Your task to perform on an android device: Go to network settings Image 0: 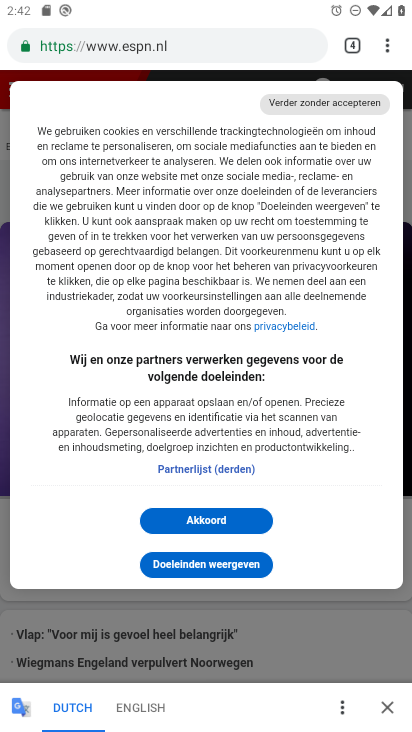
Step 0: press home button
Your task to perform on an android device: Go to network settings Image 1: 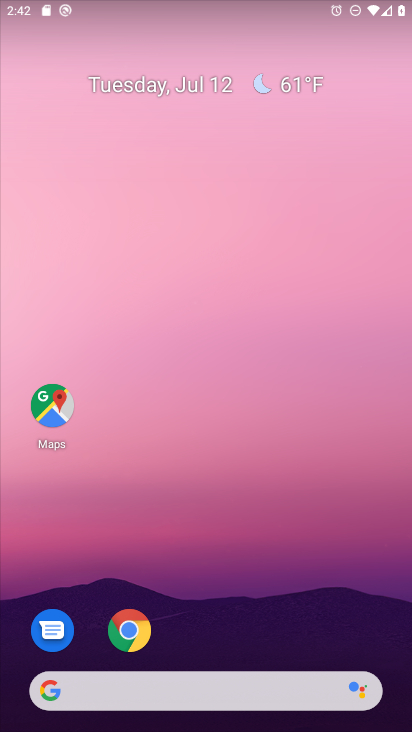
Step 1: drag from (220, 653) to (259, 131)
Your task to perform on an android device: Go to network settings Image 2: 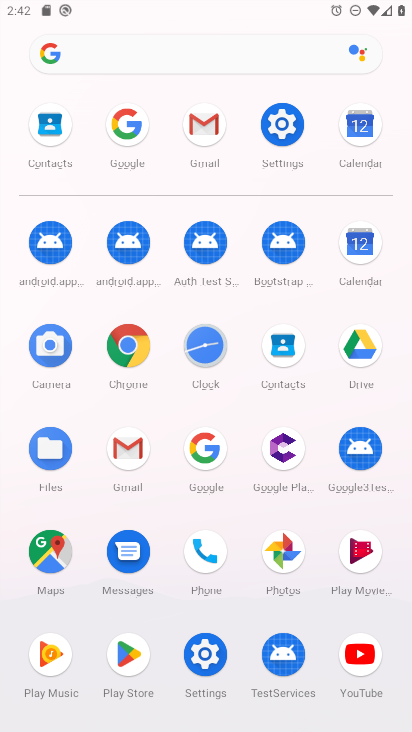
Step 2: click (291, 125)
Your task to perform on an android device: Go to network settings Image 3: 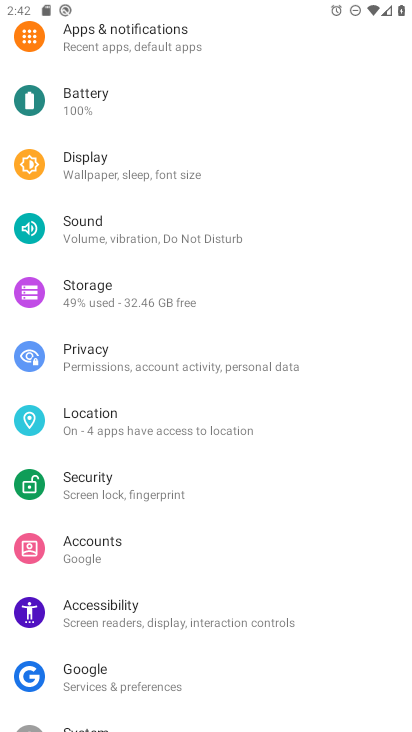
Step 3: drag from (183, 148) to (184, 526)
Your task to perform on an android device: Go to network settings Image 4: 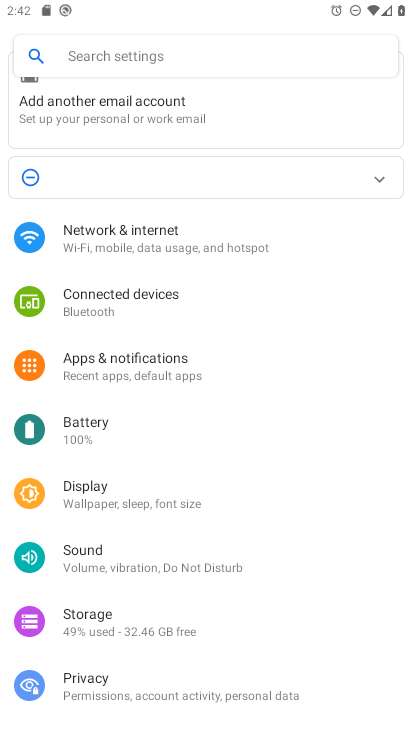
Step 4: click (173, 224)
Your task to perform on an android device: Go to network settings Image 5: 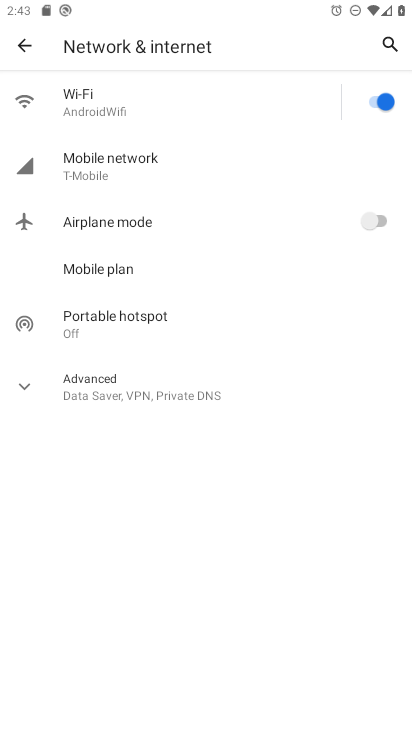
Step 5: task complete